Your task to perform on an android device: add a label to a message in the gmail app Image 0: 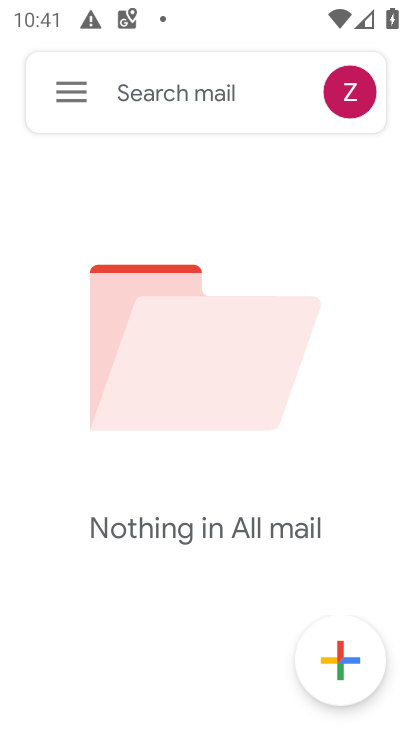
Step 0: drag from (160, 516) to (223, 306)
Your task to perform on an android device: add a label to a message in the gmail app Image 1: 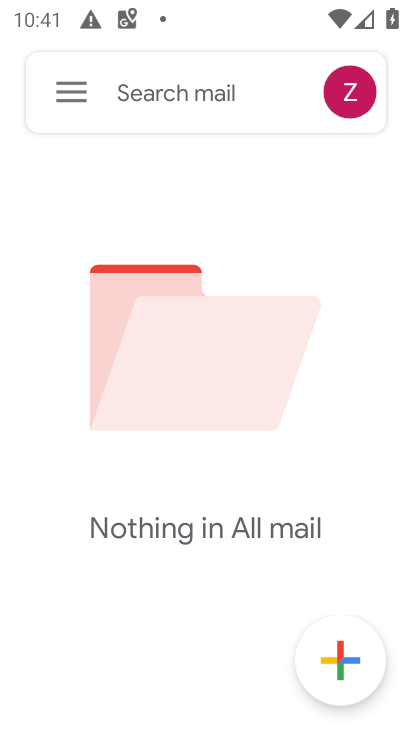
Step 1: task complete